Your task to perform on an android device: Open the stopwatch Image 0: 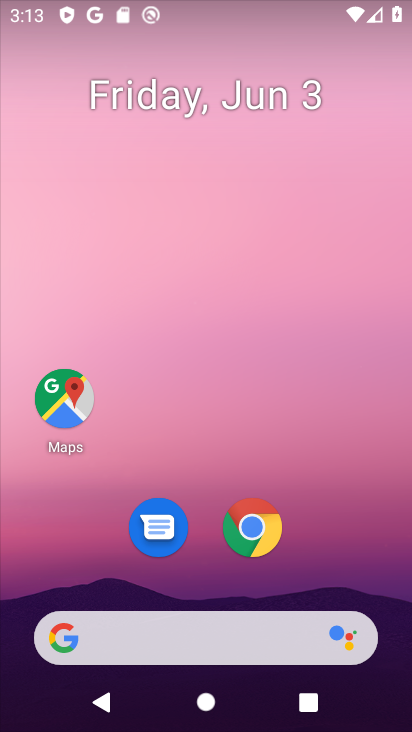
Step 0: drag from (309, 600) to (308, 228)
Your task to perform on an android device: Open the stopwatch Image 1: 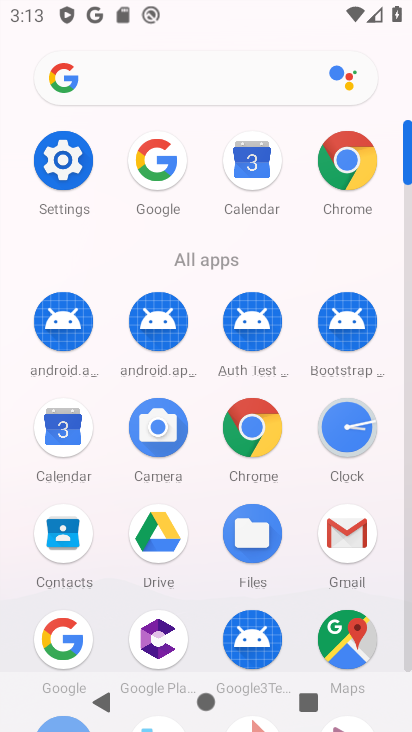
Step 1: click (352, 420)
Your task to perform on an android device: Open the stopwatch Image 2: 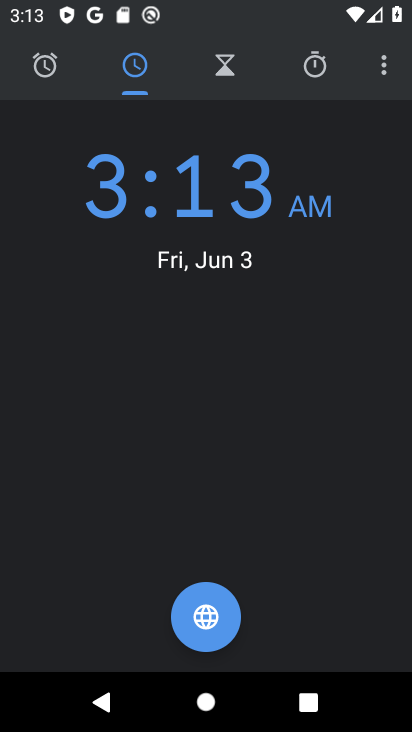
Step 2: click (322, 68)
Your task to perform on an android device: Open the stopwatch Image 3: 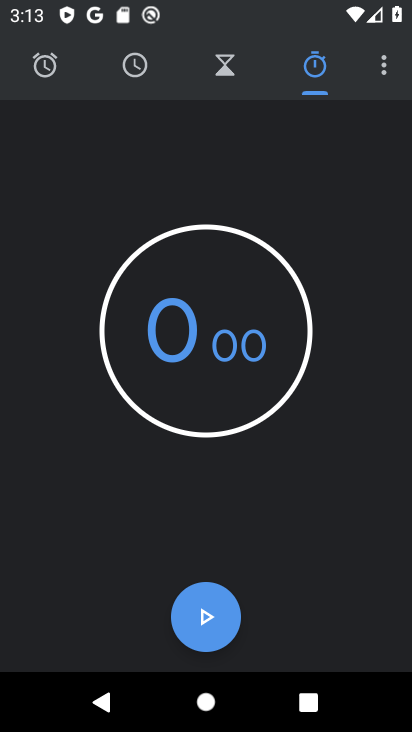
Step 3: click (227, 611)
Your task to perform on an android device: Open the stopwatch Image 4: 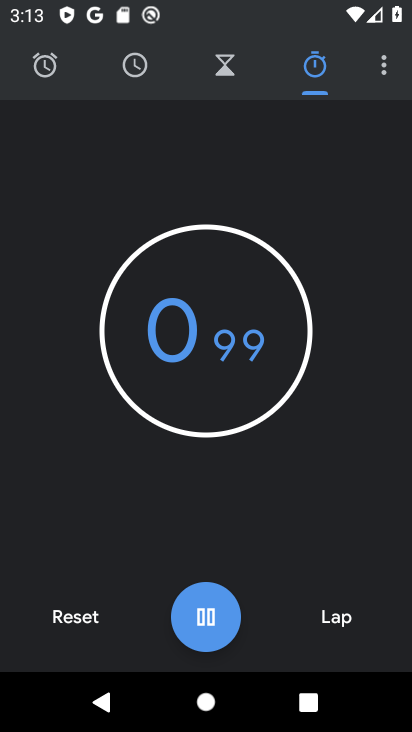
Step 4: click (226, 610)
Your task to perform on an android device: Open the stopwatch Image 5: 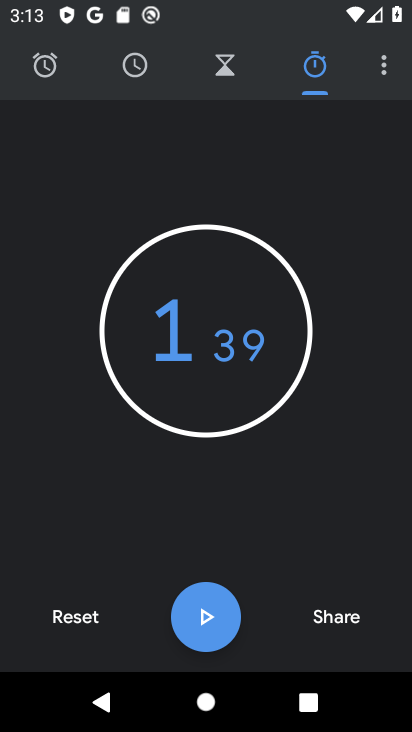
Step 5: task complete